Your task to perform on an android device: Open my contact list Image 0: 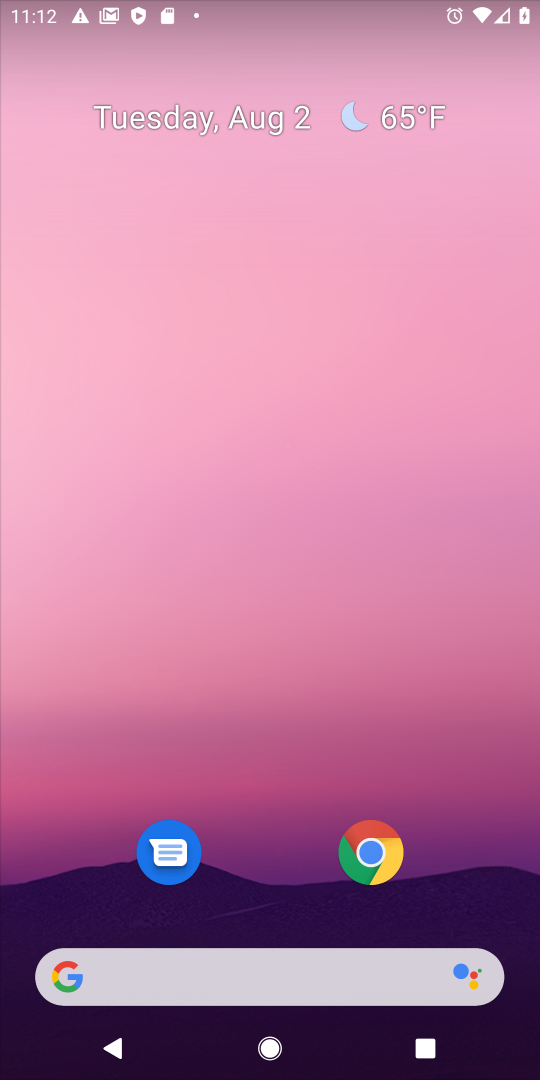
Step 0: drag from (58, 996) to (224, 19)
Your task to perform on an android device: Open my contact list Image 1: 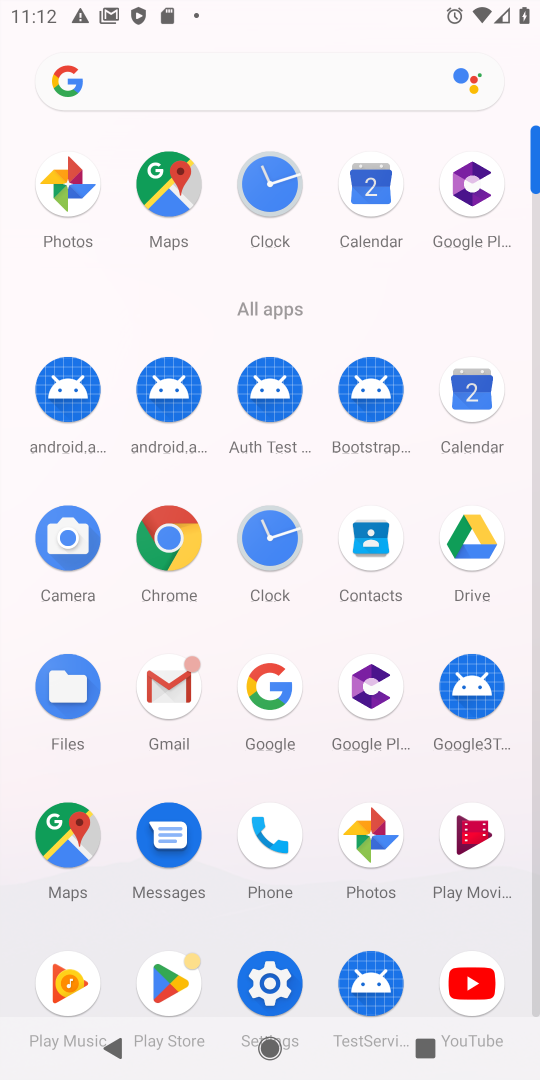
Step 1: click (353, 541)
Your task to perform on an android device: Open my contact list Image 2: 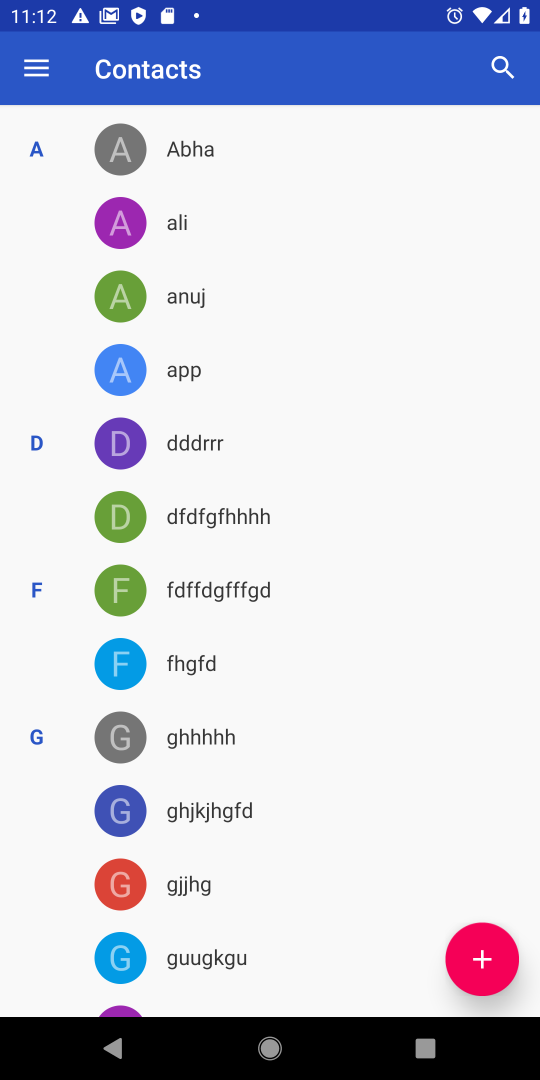
Step 2: task complete